Your task to perform on an android device: allow cookies in the chrome app Image 0: 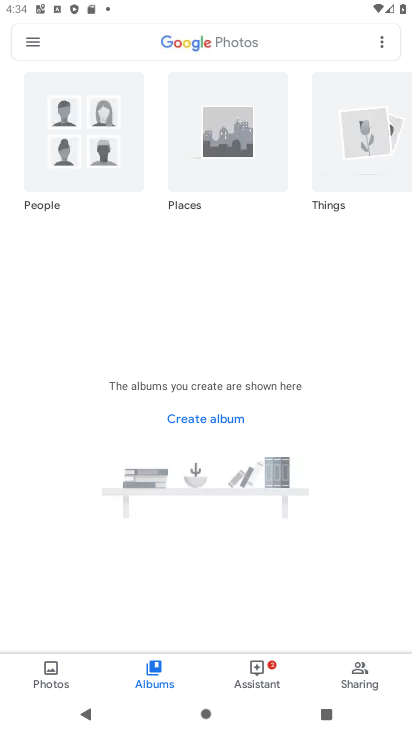
Step 0: drag from (208, 638) to (279, 614)
Your task to perform on an android device: allow cookies in the chrome app Image 1: 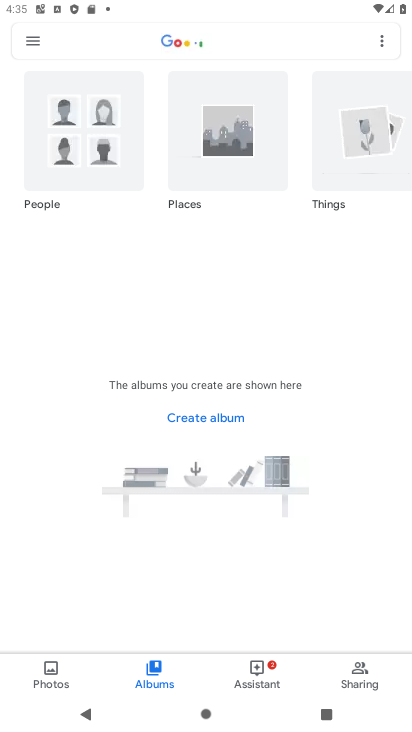
Step 1: press home button
Your task to perform on an android device: allow cookies in the chrome app Image 2: 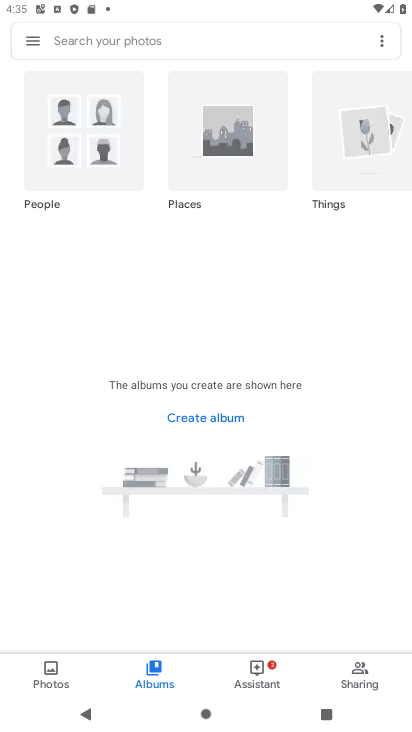
Step 2: drag from (279, 614) to (391, 566)
Your task to perform on an android device: allow cookies in the chrome app Image 3: 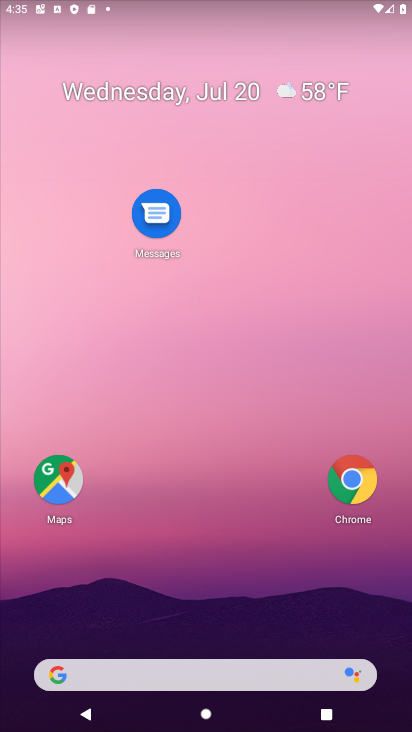
Step 3: click (351, 482)
Your task to perform on an android device: allow cookies in the chrome app Image 4: 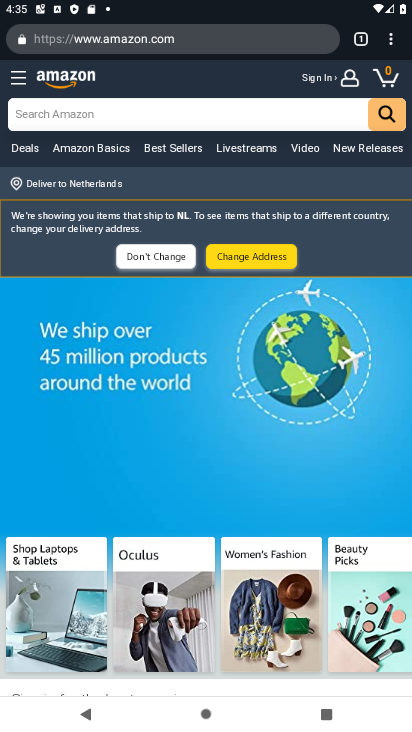
Step 4: click (393, 38)
Your task to perform on an android device: allow cookies in the chrome app Image 5: 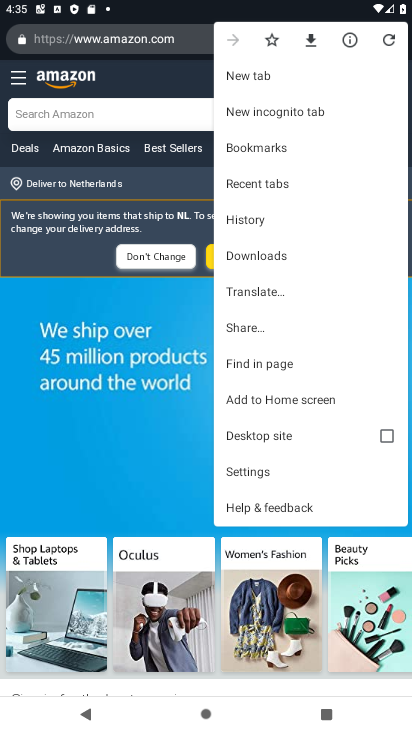
Step 5: click (235, 468)
Your task to perform on an android device: allow cookies in the chrome app Image 6: 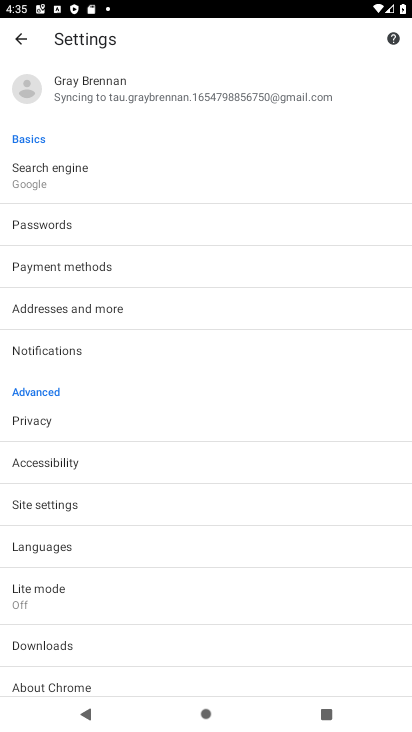
Step 6: drag from (97, 588) to (110, 284)
Your task to perform on an android device: allow cookies in the chrome app Image 7: 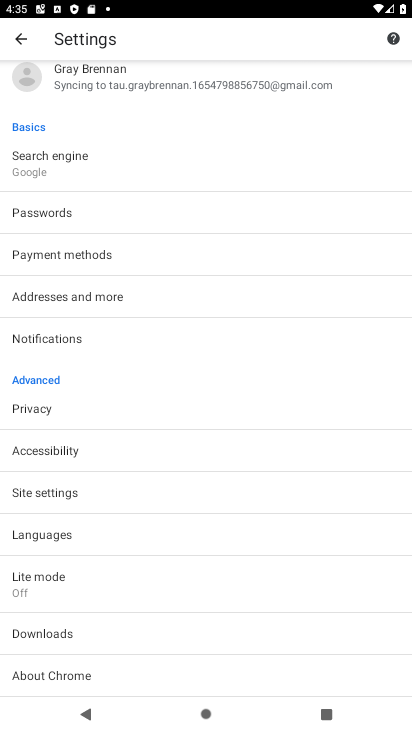
Step 7: drag from (199, 563) to (219, 226)
Your task to perform on an android device: allow cookies in the chrome app Image 8: 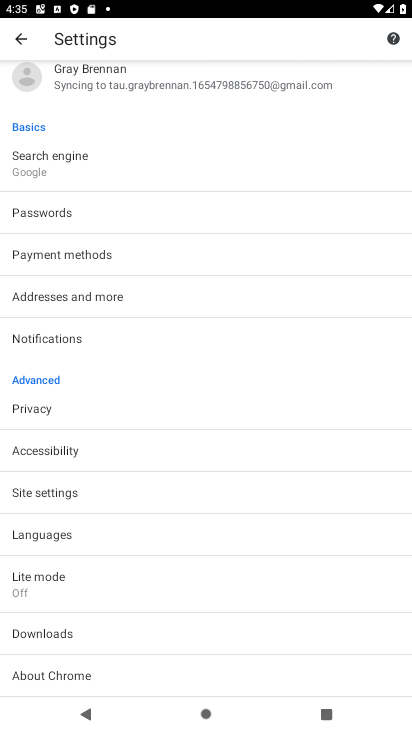
Step 8: click (56, 489)
Your task to perform on an android device: allow cookies in the chrome app Image 9: 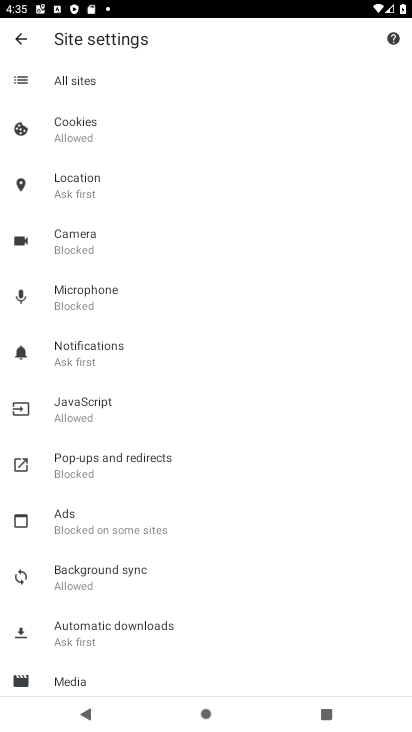
Step 9: click (72, 119)
Your task to perform on an android device: allow cookies in the chrome app Image 10: 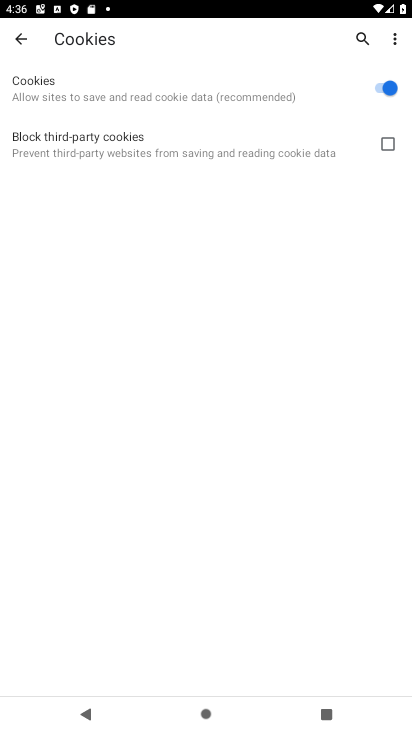
Step 10: task complete